Your task to perform on an android device: What's the news in Thailand? Image 0: 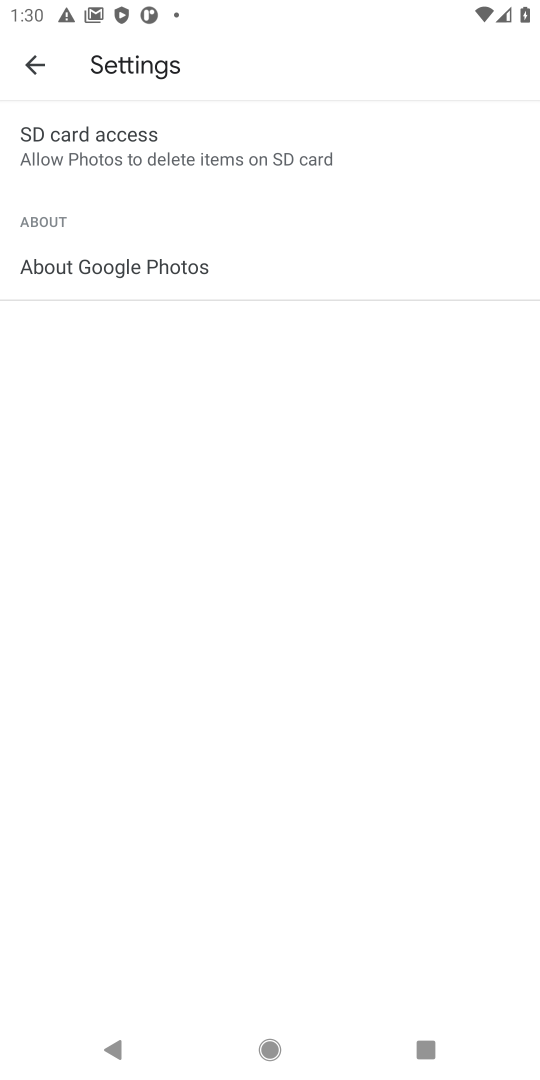
Step 0: press home button
Your task to perform on an android device: What's the news in Thailand? Image 1: 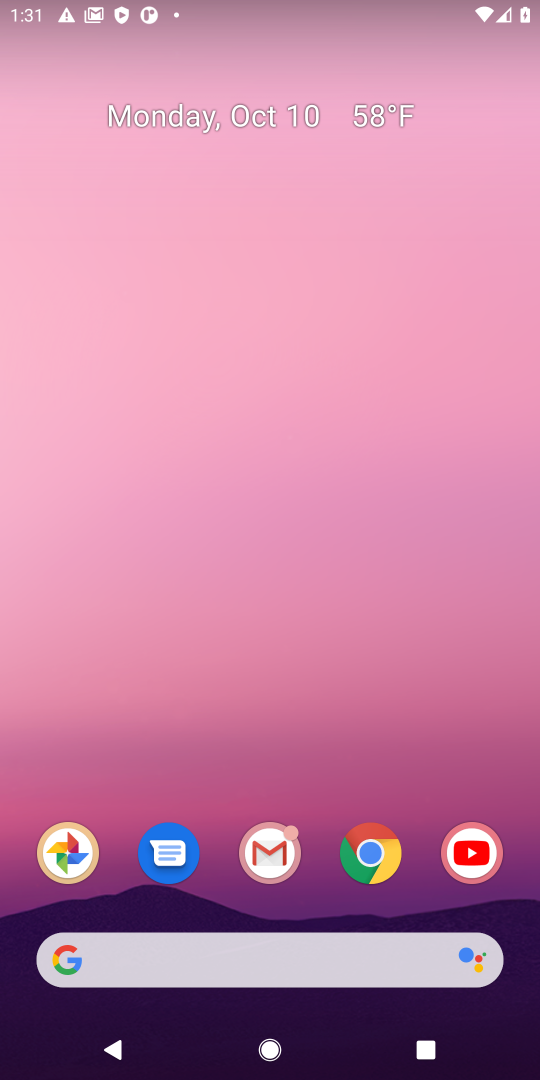
Step 1: click (357, 860)
Your task to perform on an android device: What's the news in Thailand? Image 2: 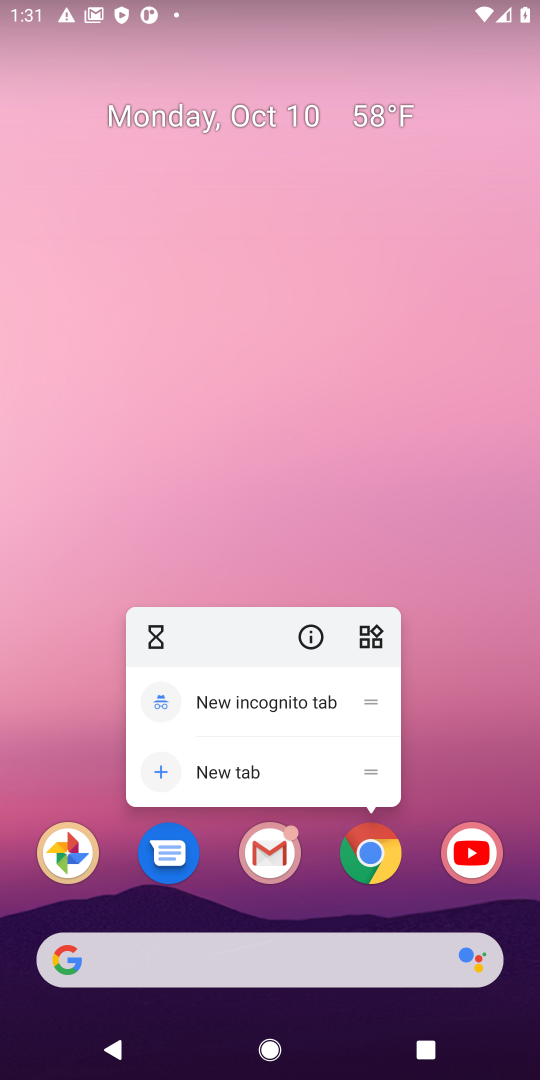
Step 2: click (371, 859)
Your task to perform on an android device: What's the news in Thailand? Image 3: 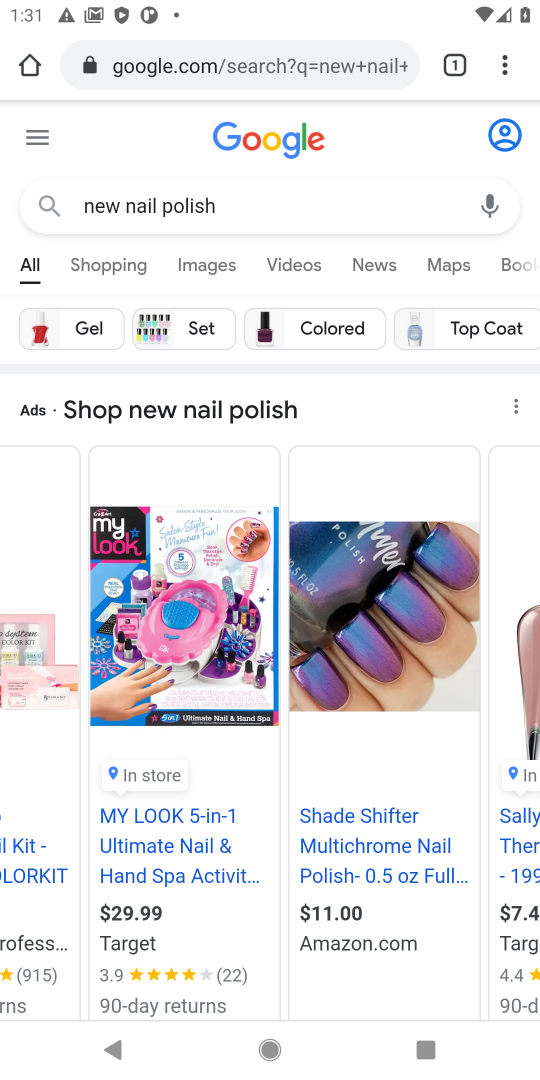
Step 3: click (270, 67)
Your task to perform on an android device: What's the news in Thailand? Image 4: 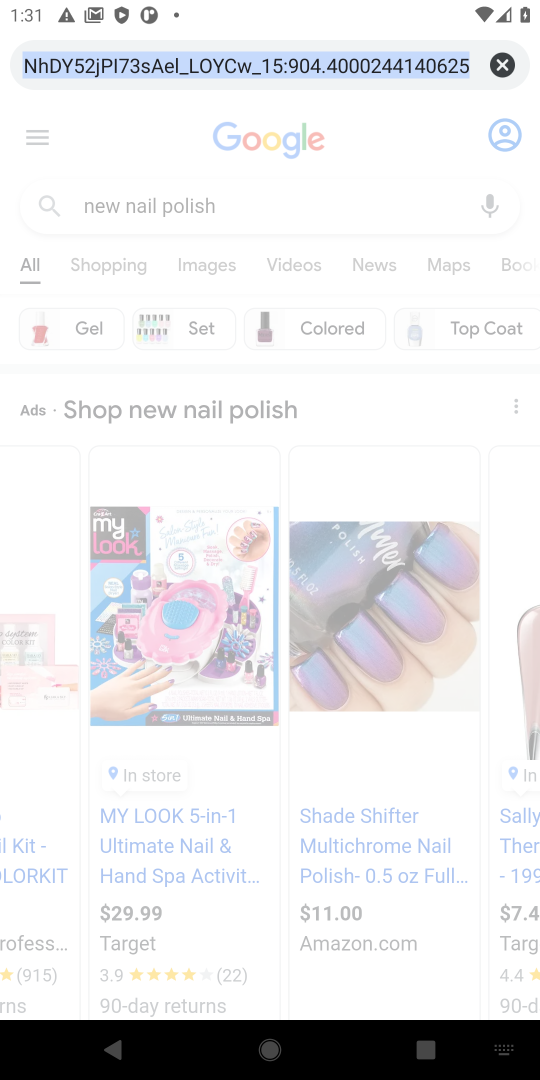
Step 4: type "Thailand"
Your task to perform on an android device: What's the news in Thailand? Image 5: 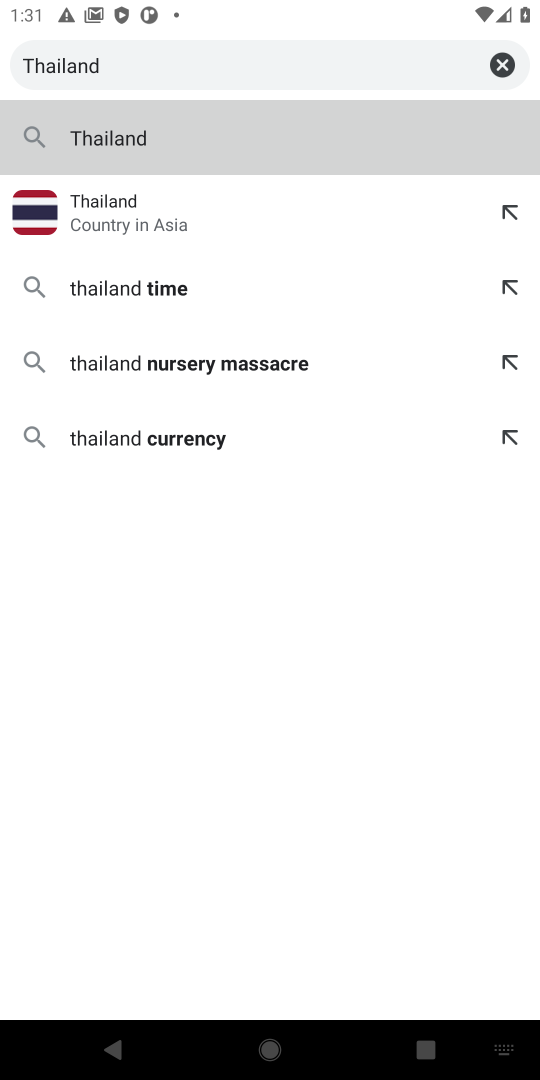
Step 5: click (164, 141)
Your task to perform on an android device: What's the news in Thailand? Image 6: 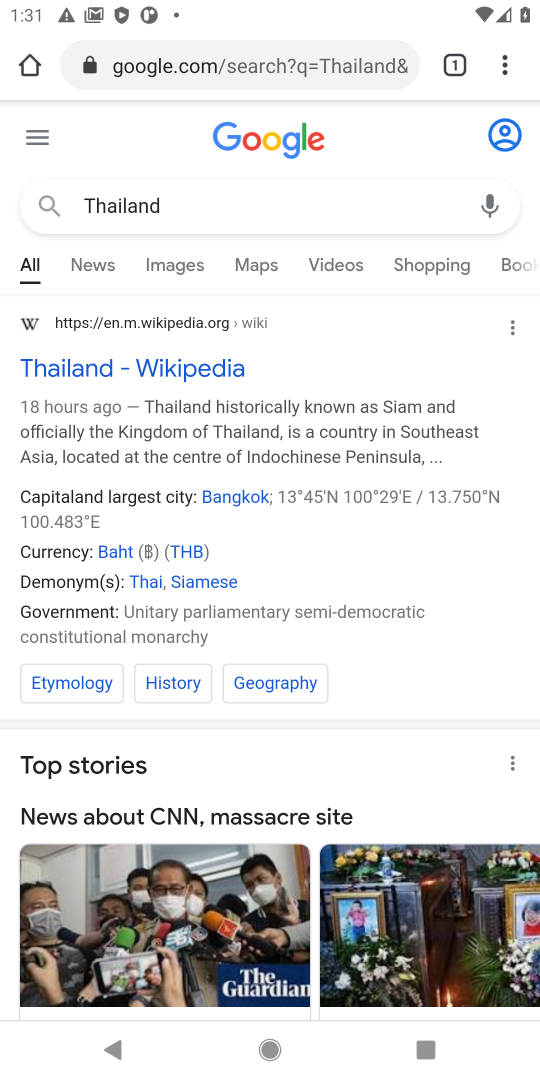
Step 6: click (87, 267)
Your task to perform on an android device: What's the news in Thailand? Image 7: 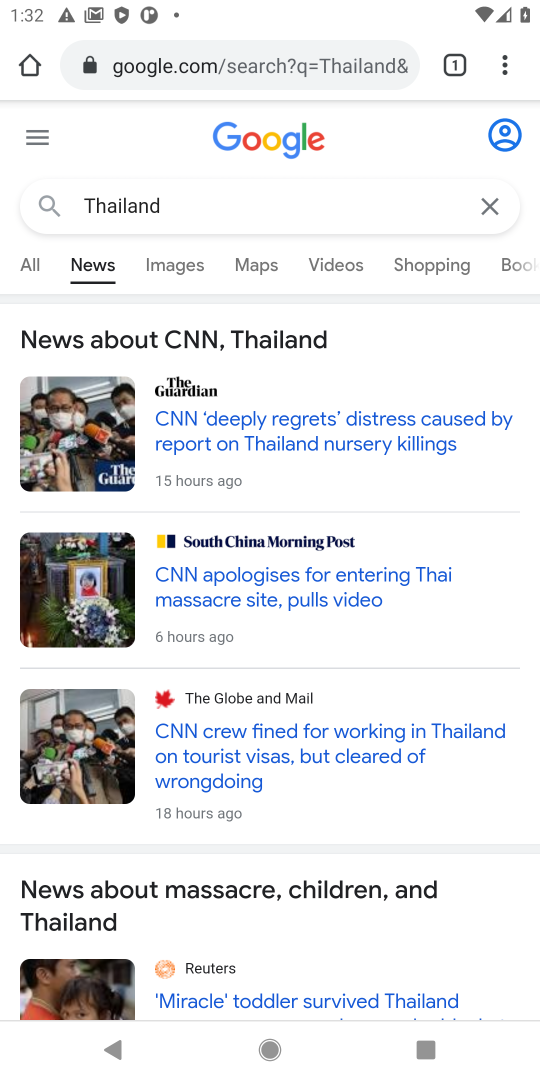
Step 7: task complete